Your task to perform on an android device: all mails in gmail Image 0: 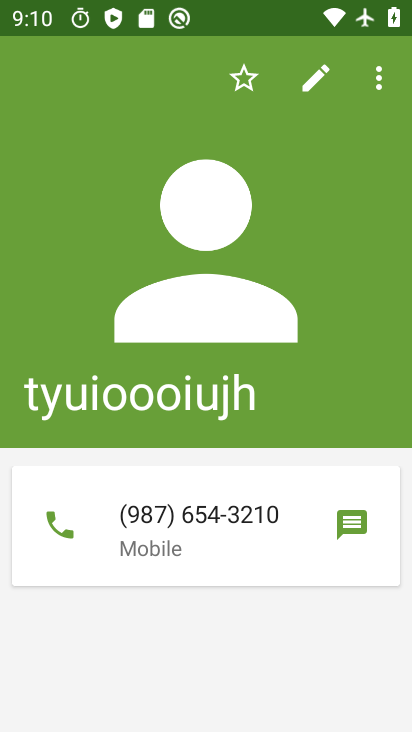
Step 0: press home button
Your task to perform on an android device: all mails in gmail Image 1: 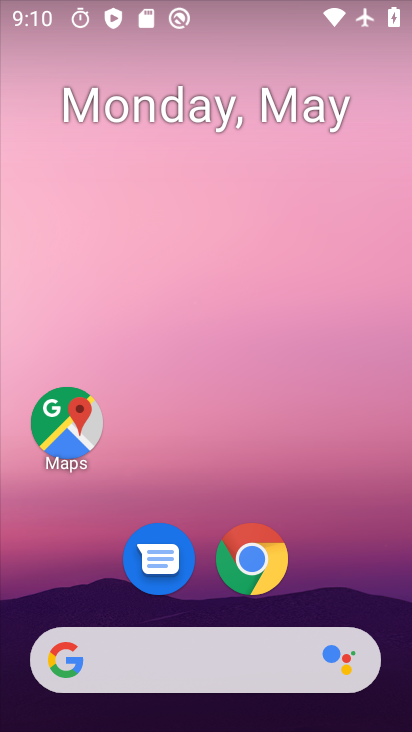
Step 1: drag from (196, 598) to (206, 91)
Your task to perform on an android device: all mails in gmail Image 2: 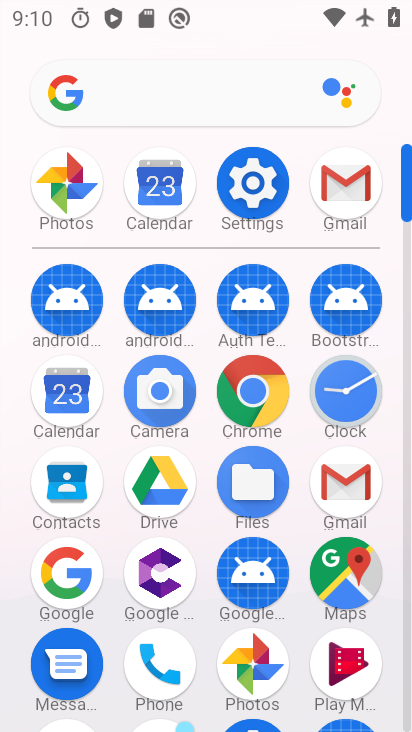
Step 2: click (344, 193)
Your task to perform on an android device: all mails in gmail Image 3: 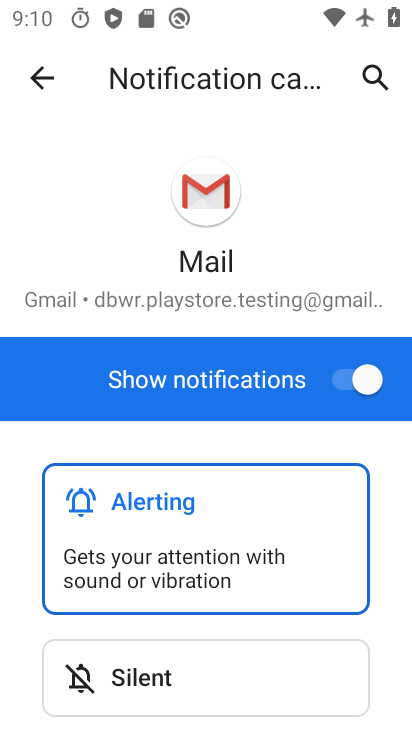
Step 3: click (43, 91)
Your task to perform on an android device: all mails in gmail Image 4: 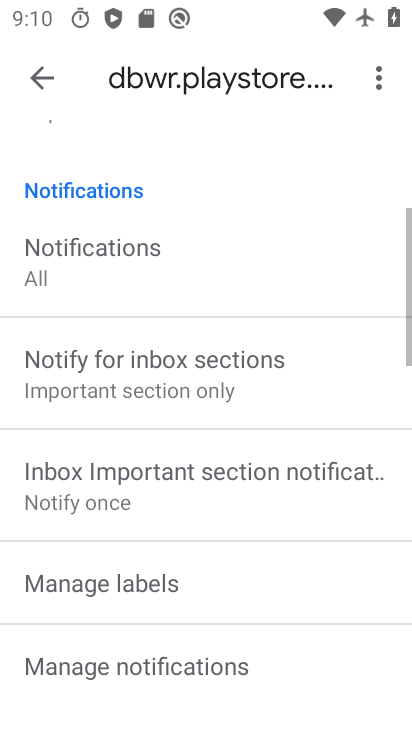
Step 4: click (44, 92)
Your task to perform on an android device: all mails in gmail Image 5: 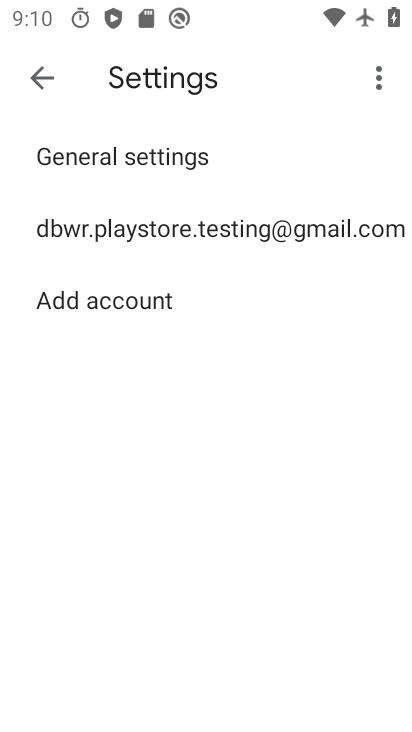
Step 5: click (44, 92)
Your task to perform on an android device: all mails in gmail Image 6: 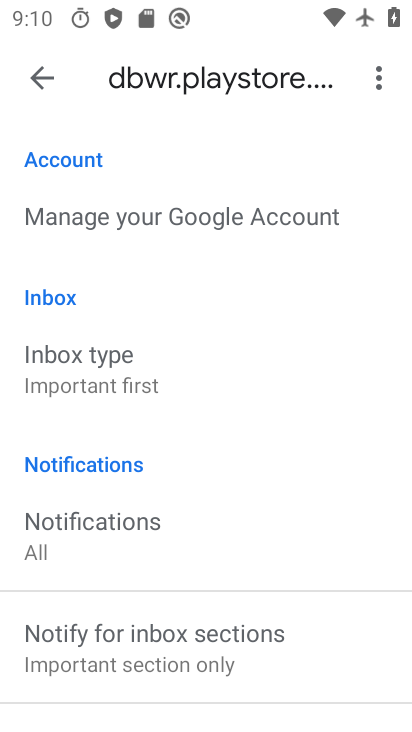
Step 6: click (47, 73)
Your task to perform on an android device: all mails in gmail Image 7: 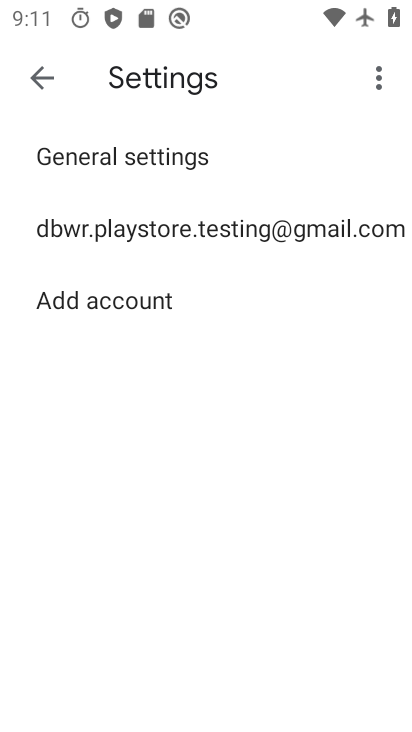
Step 7: click (47, 73)
Your task to perform on an android device: all mails in gmail Image 8: 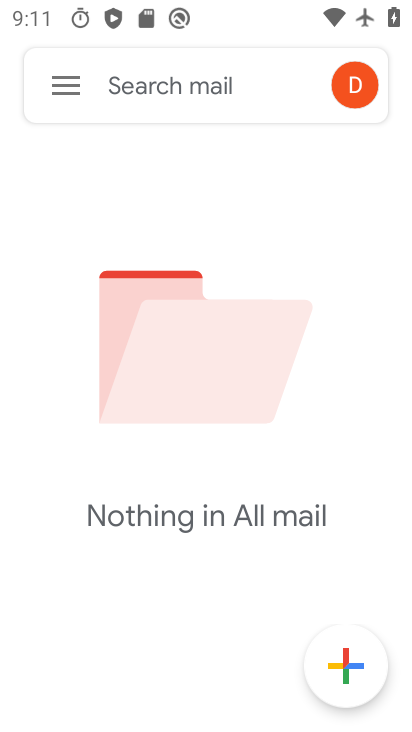
Step 8: click (58, 84)
Your task to perform on an android device: all mails in gmail Image 9: 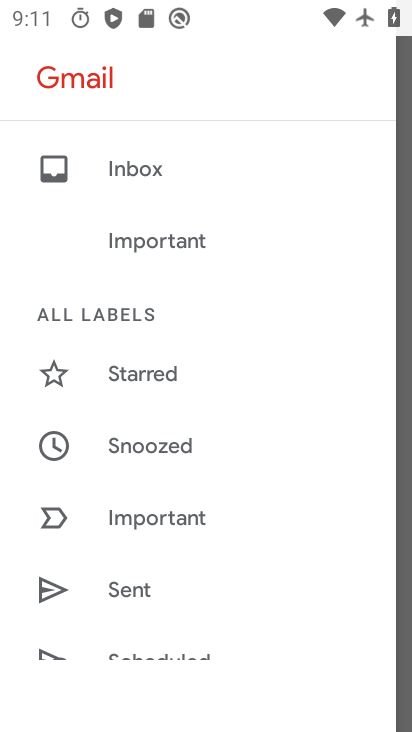
Step 9: drag from (170, 567) to (159, 259)
Your task to perform on an android device: all mails in gmail Image 10: 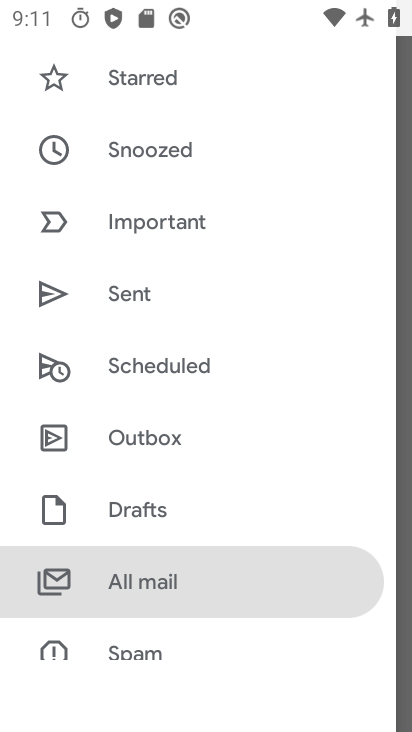
Step 10: click (182, 564)
Your task to perform on an android device: all mails in gmail Image 11: 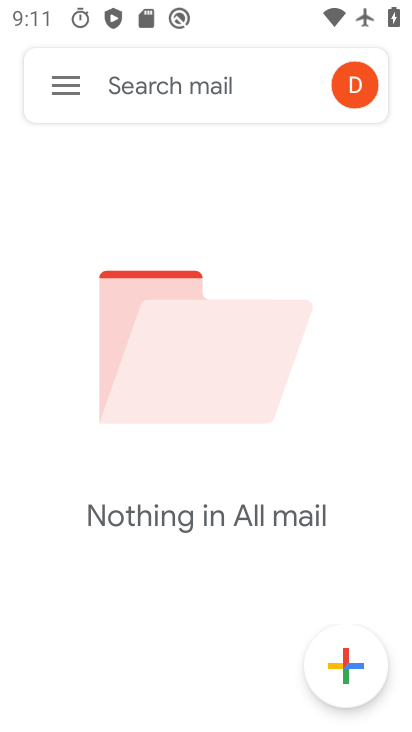
Step 11: task complete